Your task to perform on an android device: Open internet settings Image 0: 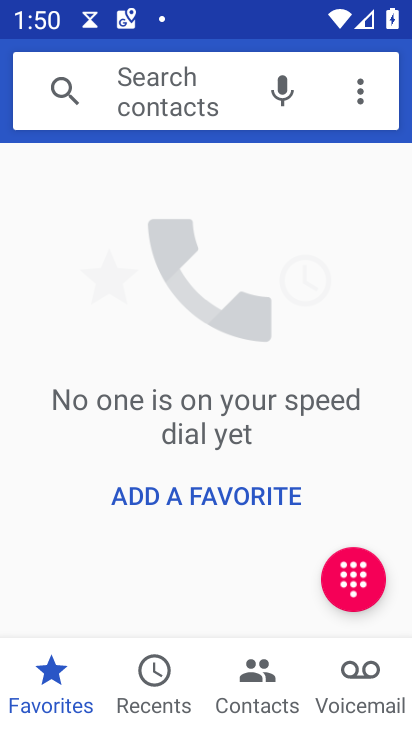
Step 0: drag from (292, 15) to (260, 729)
Your task to perform on an android device: Open internet settings Image 1: 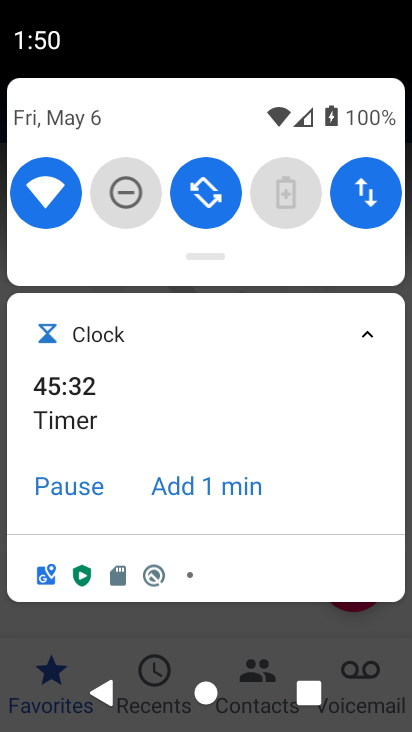
Step 1: click (372, 216)
Your task to perform on an android device: Open internet settings Image 2: 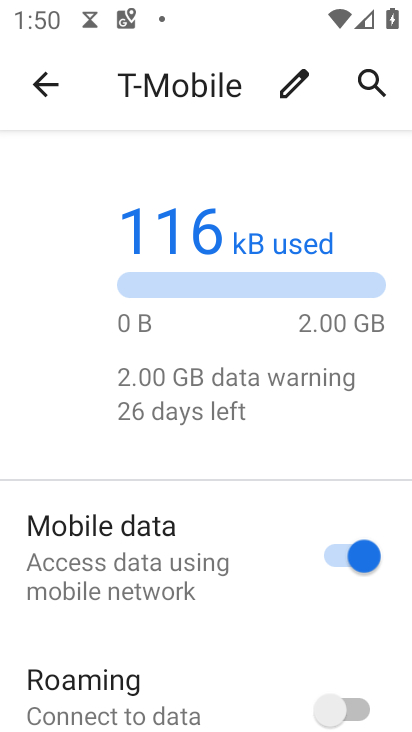
Step 2: drag from (192, 570) to (235, 389)
Your task to perform on an android device: Open internet settings Image 3: 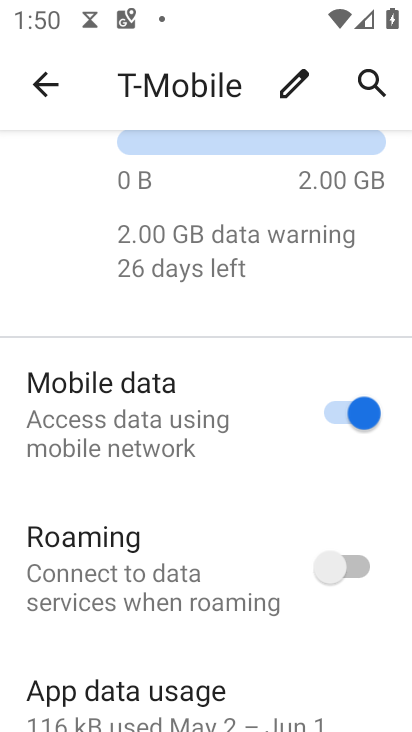
Step 3: click (276, 221)
Your task to perform on an android device: Open internet settings Image 4: 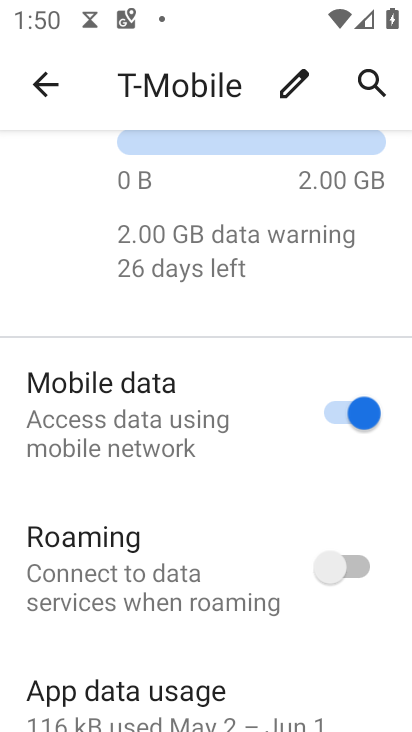
Step 4: drag from (141, 509) to (217, 257)
Your task to perform on an android device: Open internet settings Image 5: 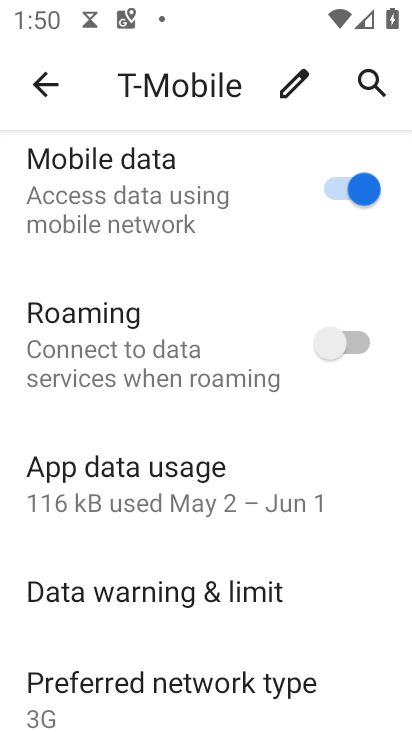
Step 5: click (200, 486)
Your task to perform on an android device: Open internet settings Image 6: 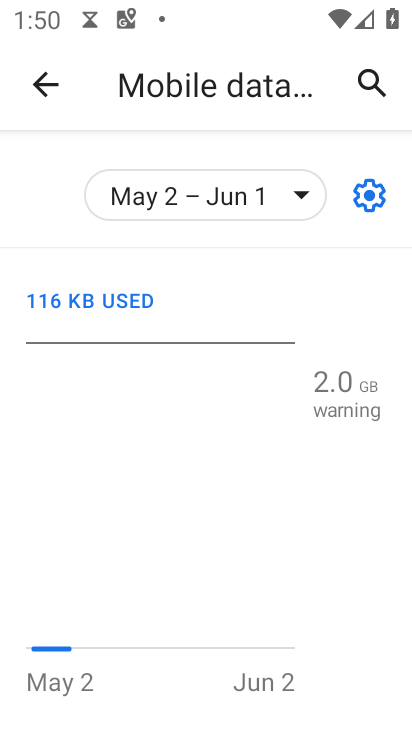
Step 6: task complete